Your task to perform on an android device: Open Google Chrome Image 0: 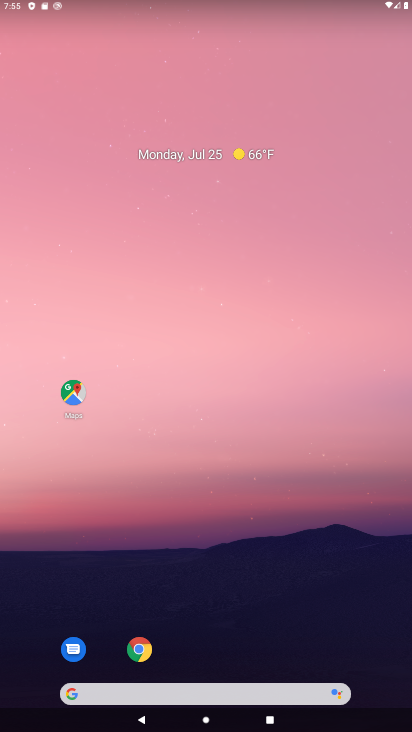
Step 0: click (135, 657)
Your task to perform on an android device: Open Google Chrome Image 1: 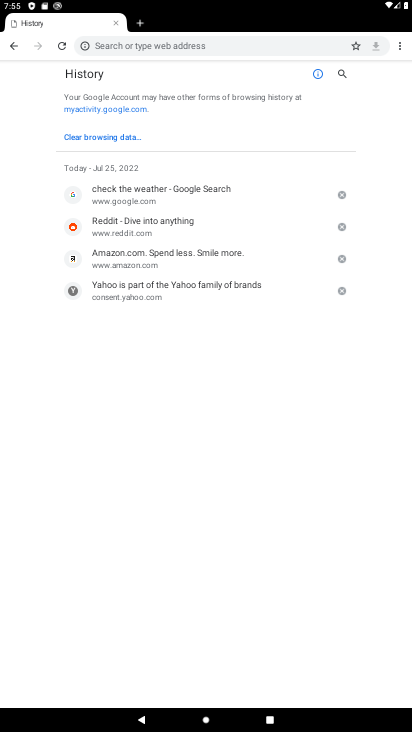
Step 1: task complete